Your task to perform on an android device: turn off javascript in the chrome app Image 0: 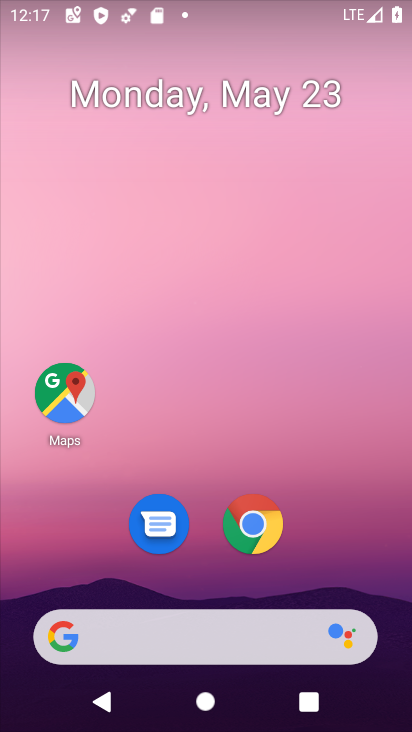
Step 0: click (274, 520)
Your task to perform on an android device: turn off javascript in the chrome app Image 1: 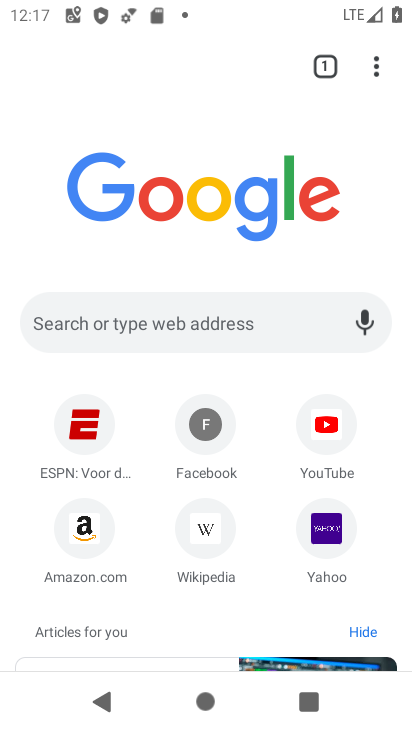
Step 1: click (371, 68)
Your task to perform on an android device: turn off javascript in the chrome app Image 2: 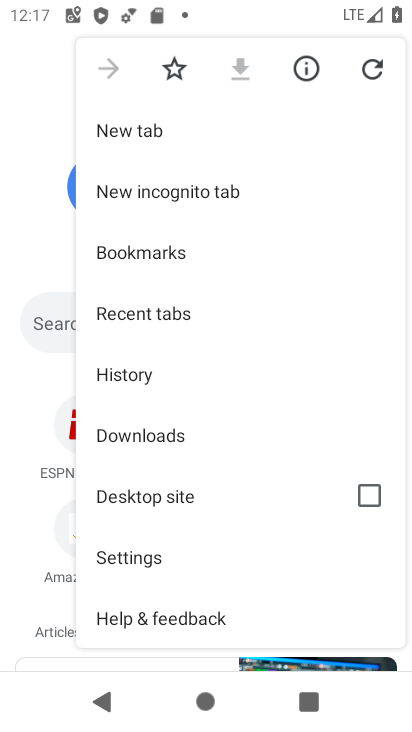
Step 2: click (188, 556)
Your task to perform on an android device: turn off javascript in the chrome app Image 3: 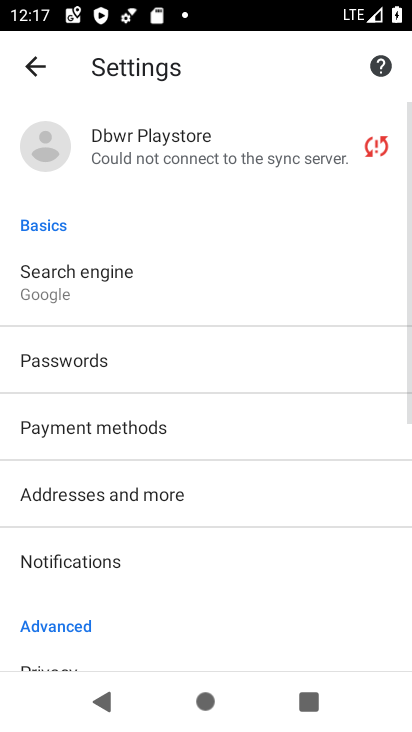
Step 3: drag from (191, 558) to (210, 266)
Your task to perform on an android device: turn off javascript in the chrome app Image 4: 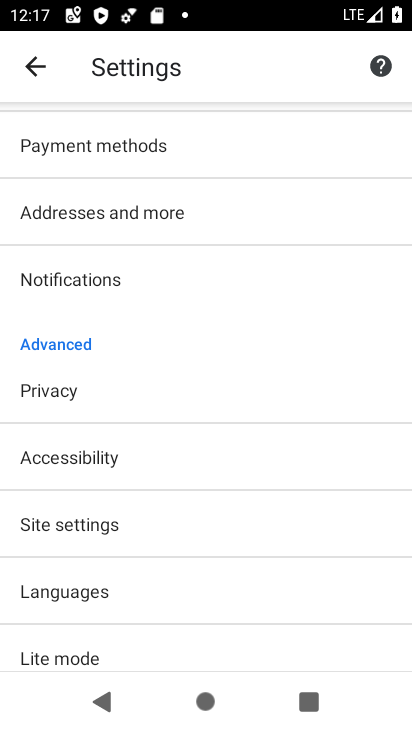
Step 4: click (132, 518)
Your task to perform on an android device: turn off javascript in the chrome app Image 5: 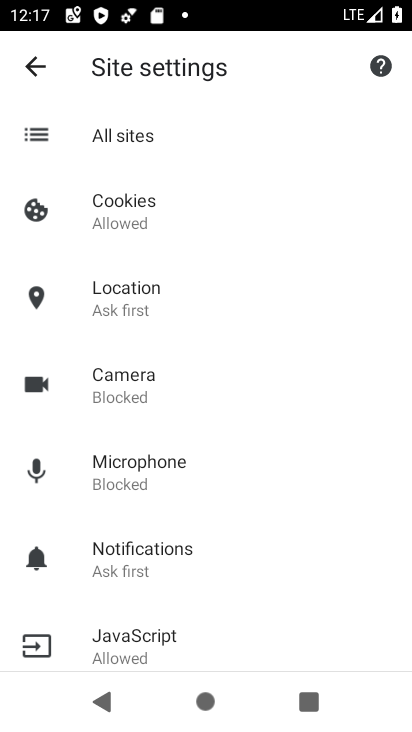
Step 5: click (166, 641)
Your task to perform on an android device: turn off javascript in the chrome app Image 6: 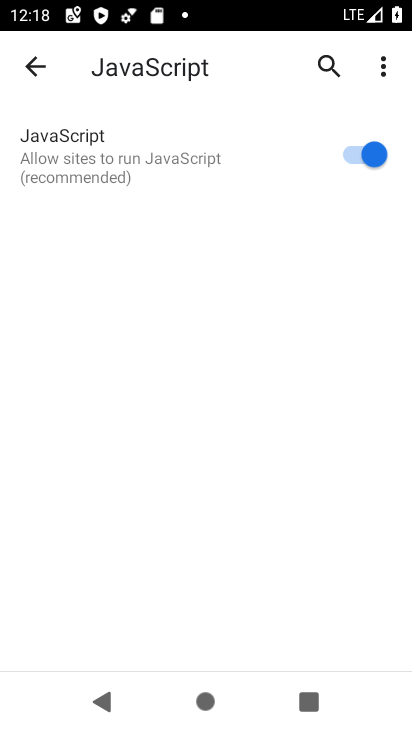
Step 6: click (363, 148)
Your task to perform on an android device: turn off javascript in the chrome app Image 7: 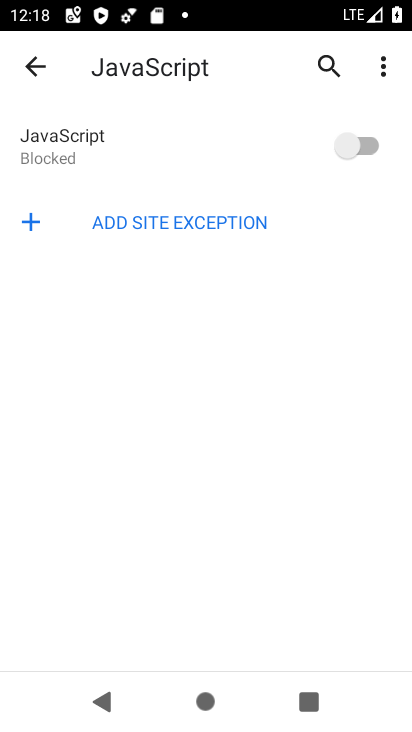
Step 7: task complete